Your task to perform on an android device: Go to Yahoo.com Image 0: 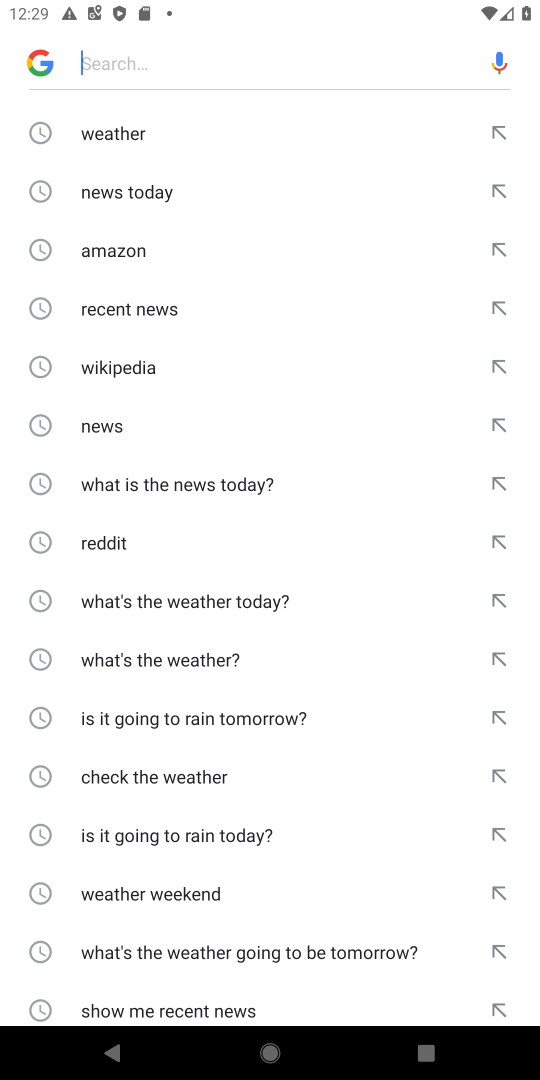
Step 0: press home button
Your task to perform on an android device: Go to Yahoo.com Image 1: 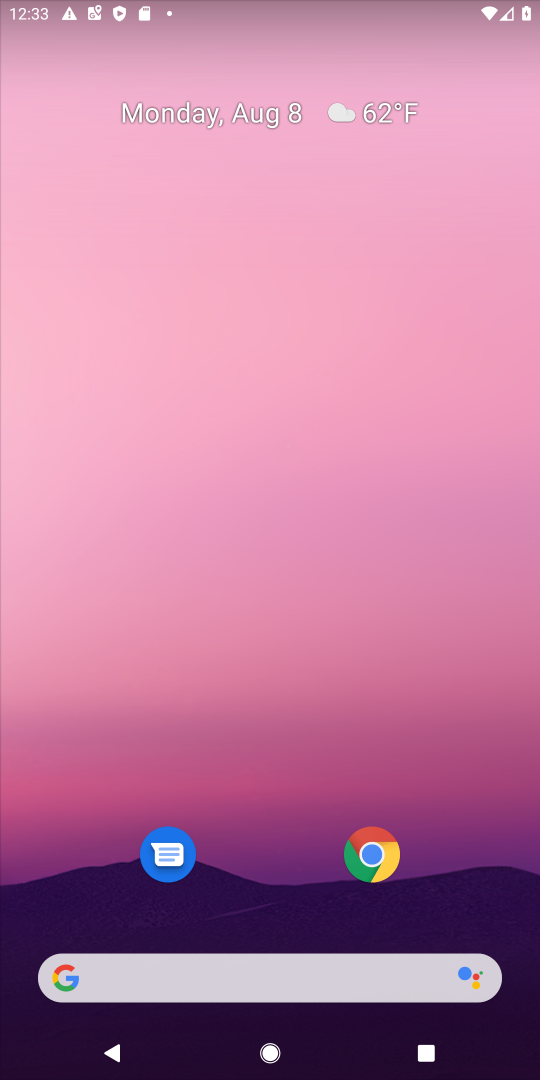
Step 1: click (58, 982)
Your task to perform on an android device: Go to Yahoo.com Image 2: 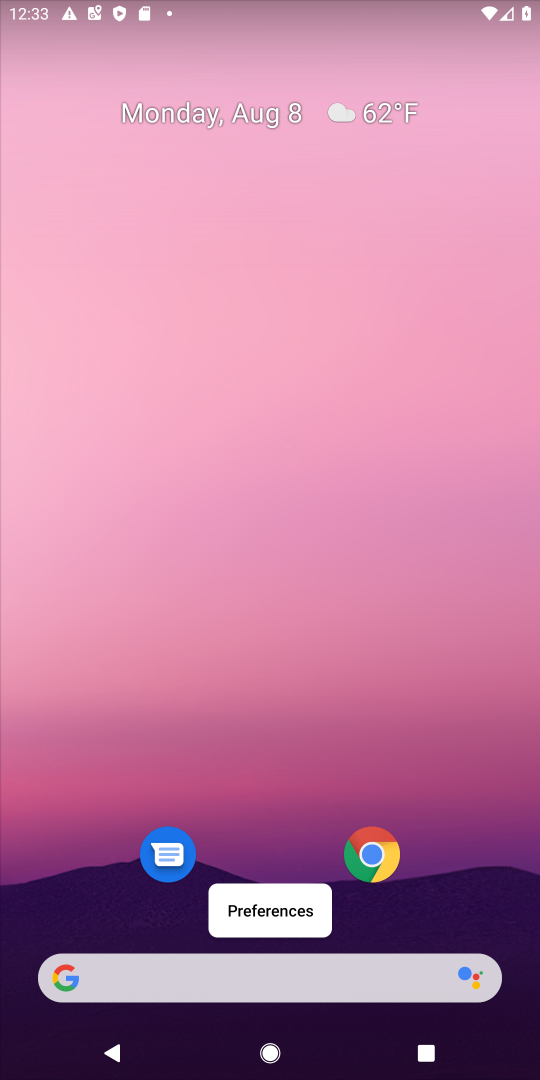
Step 2: click (58, 982)
Your task to perform on an android device: Go to Yahoo.com Image 3: 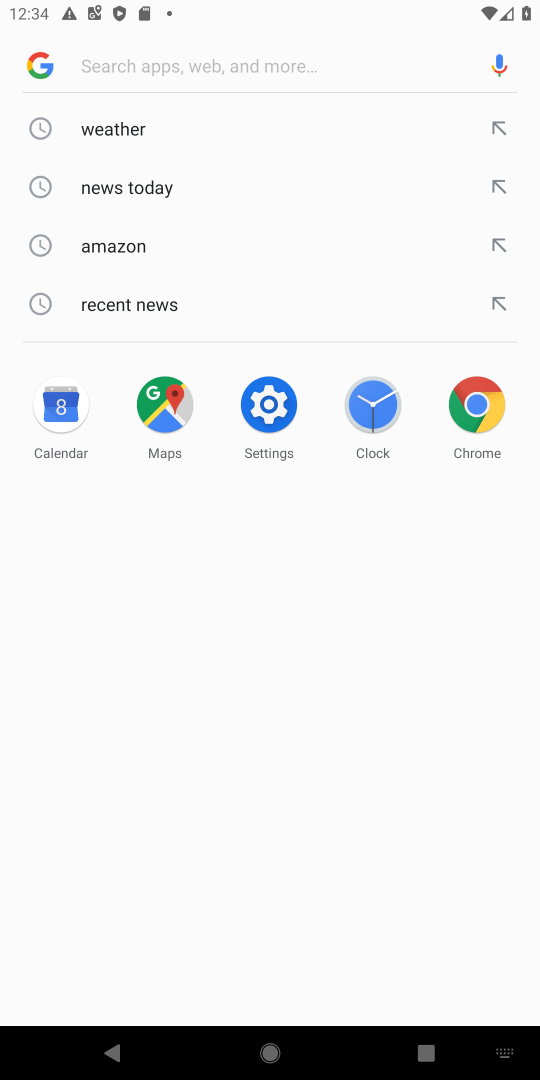
Step 3: press enter
Your task to perform on an android device: Go to Yahoo.com Image 4: 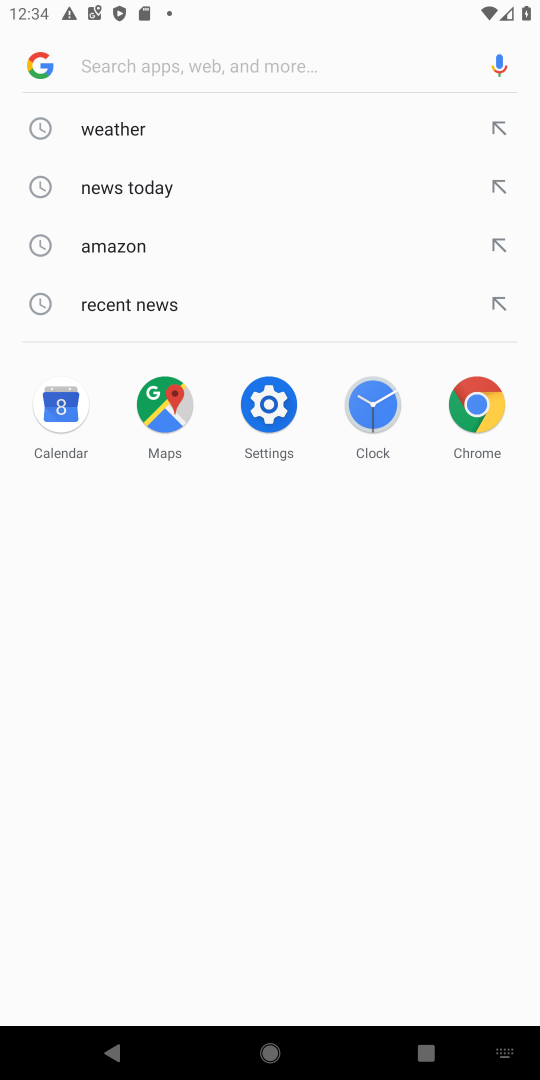
Step 4: type "Yahoo.com"
Your task to perform on an android device: Go to Yahoo.com Image 5: 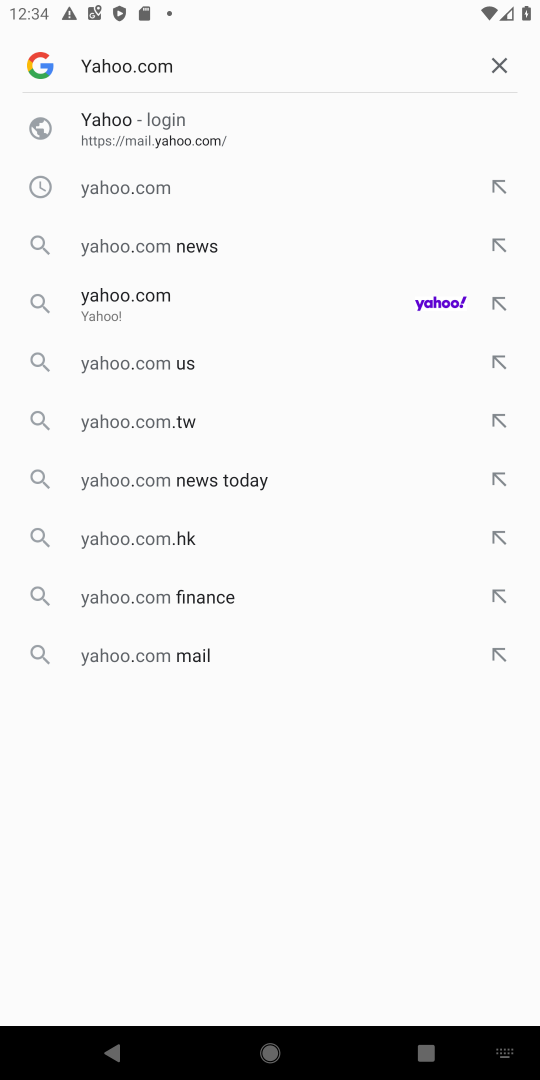
Step 5: press enter
Your task to perform on an android device: Go to Yahoo.com Image 6: 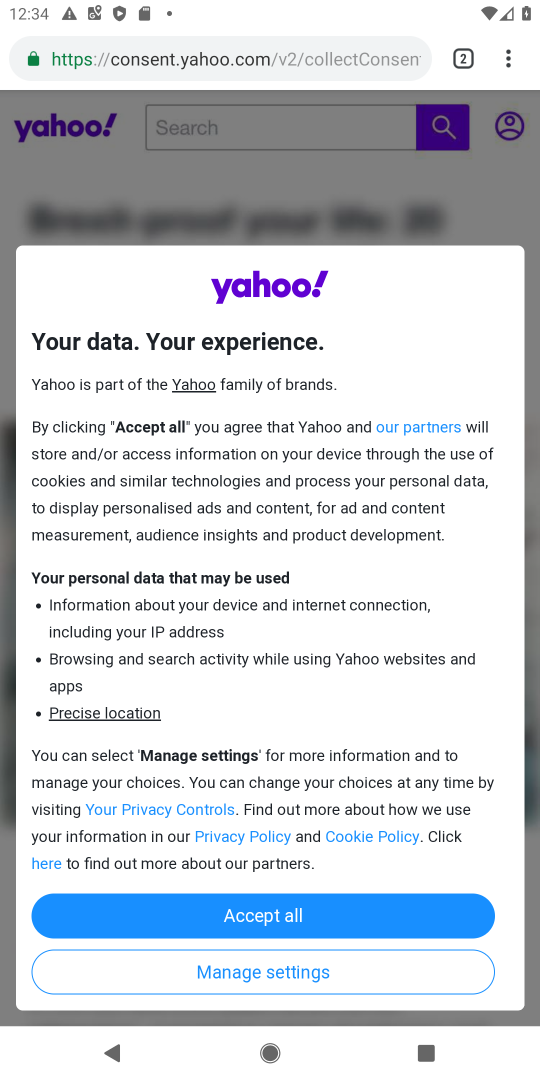
Step 6: click (254, 918)
Your task to perform on an android device: Go to Yahoo.com Image 7: 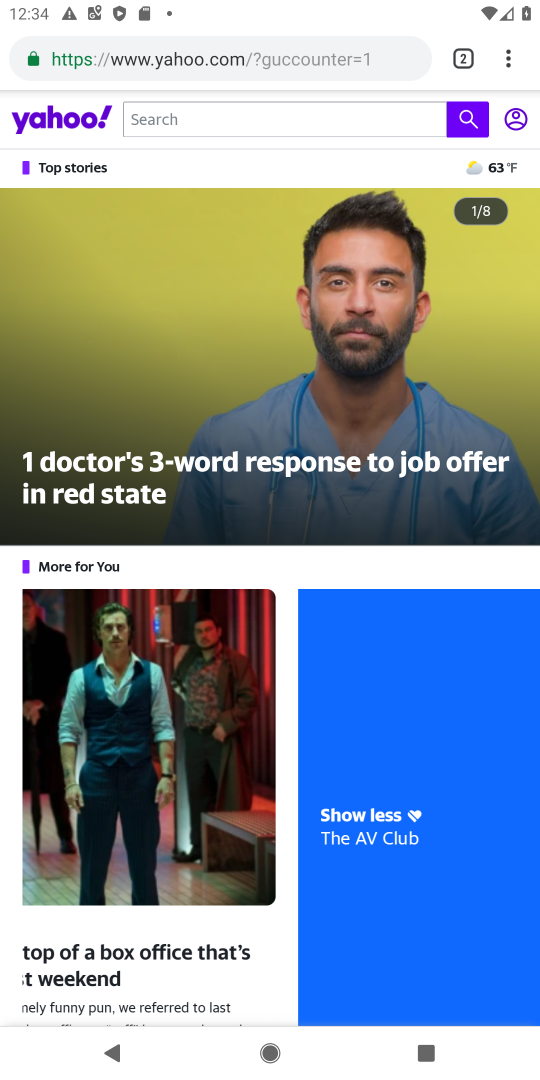
Step 7: task complete